Your task to perform on an android device: turn off notifications settings in the gmail app Image 0: 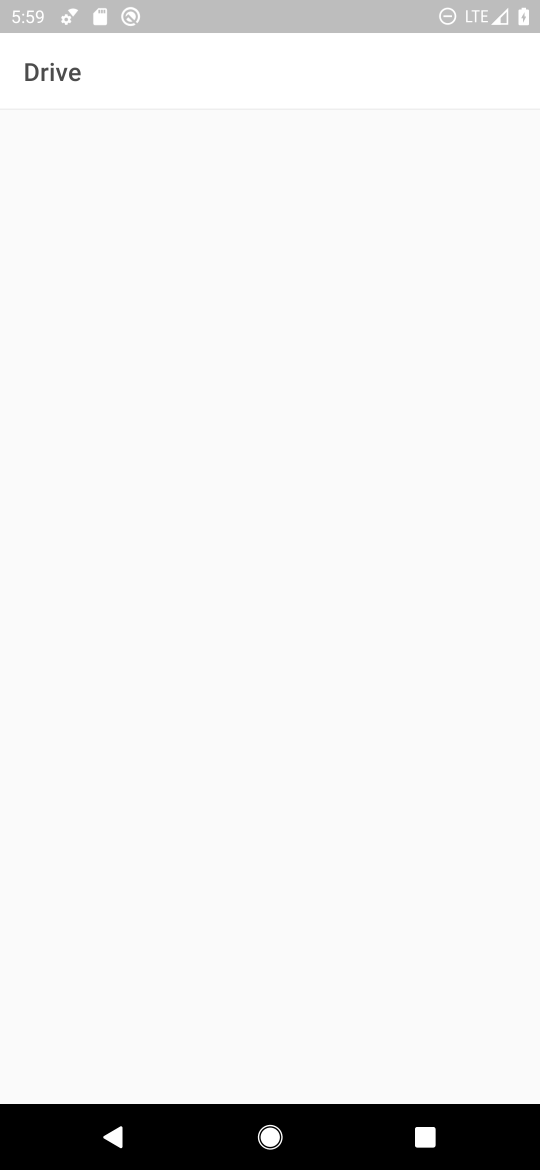
Step 0: press home button
Your task to perform on an android device: turn off notifications settings in the gmail app Image 1: 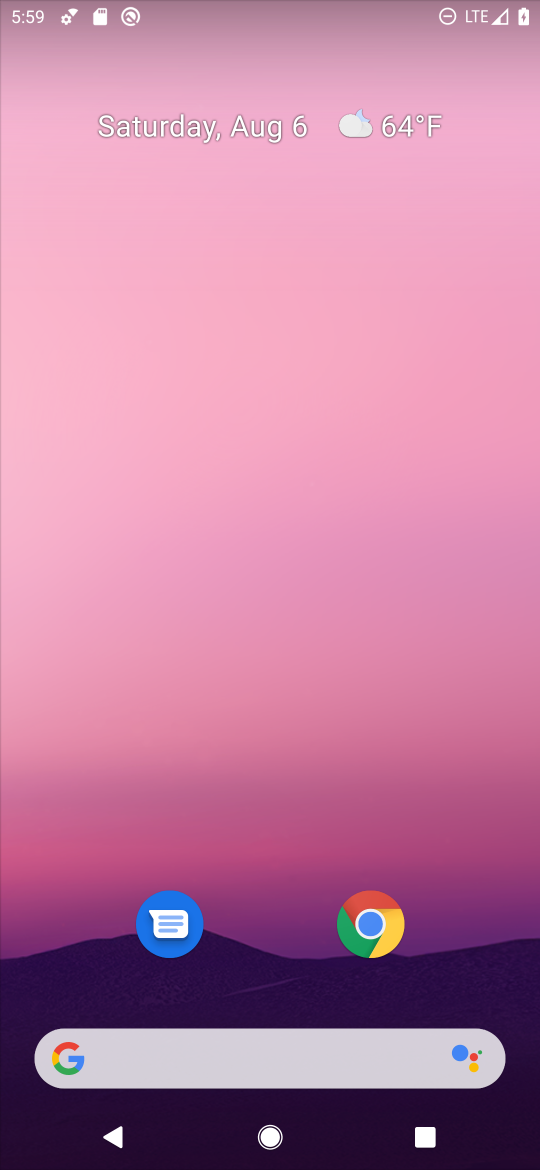
Step 1: drag from (252, 934) to (252, 231)
Your task to perform on an android device: turn off notifications settings in the gmail app Image 2: 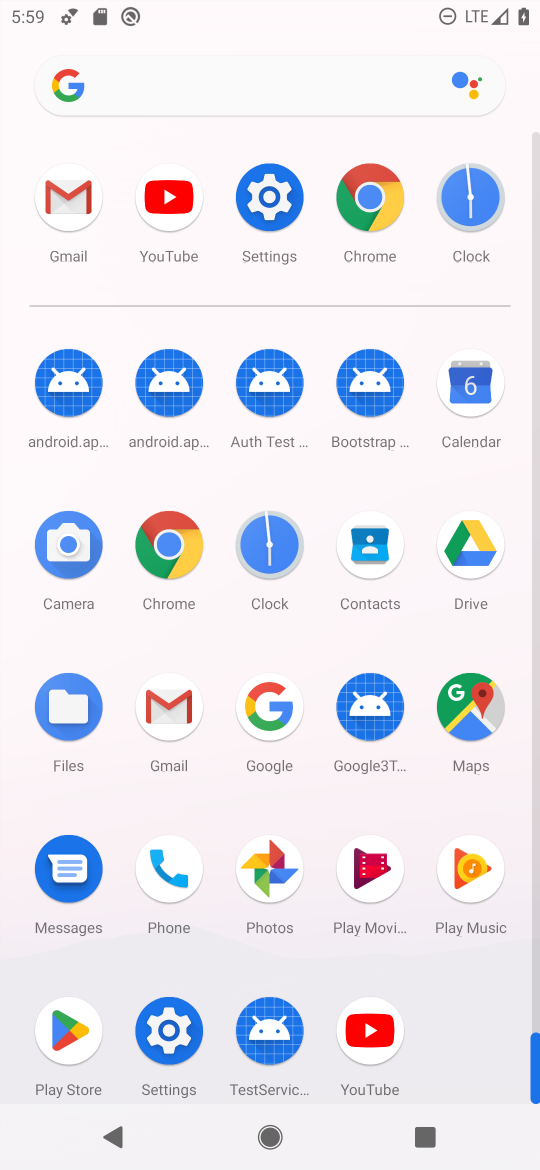
Step 2: click (67, 192)
Your task to perform on an android device: turn off notifications settings in the gmail app Image 3: 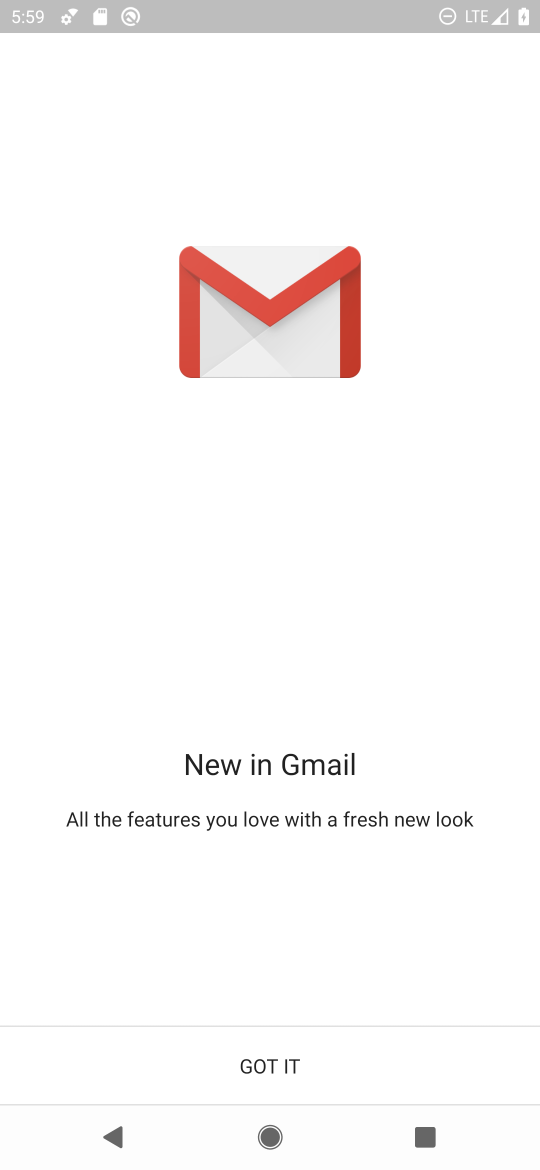
Step 3: click (270, 1057)
Your task to perform on an android device: turn off notifications settings in the gmail app Image 4: 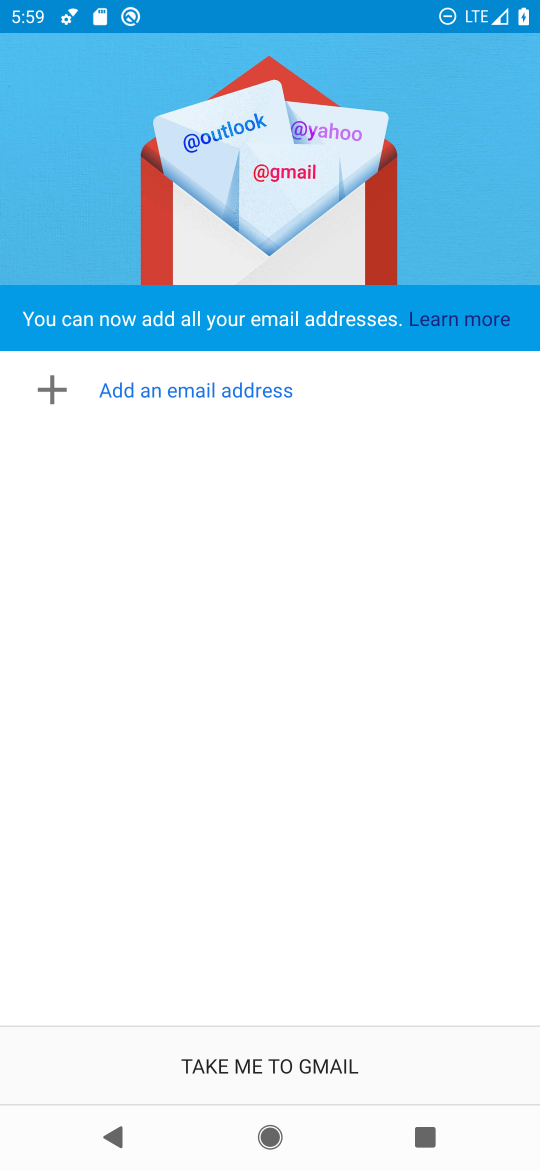
Step 4: click (251, 1047)
Your task to perform on an android device: turn off notifications settings in the gmail app Image 5: 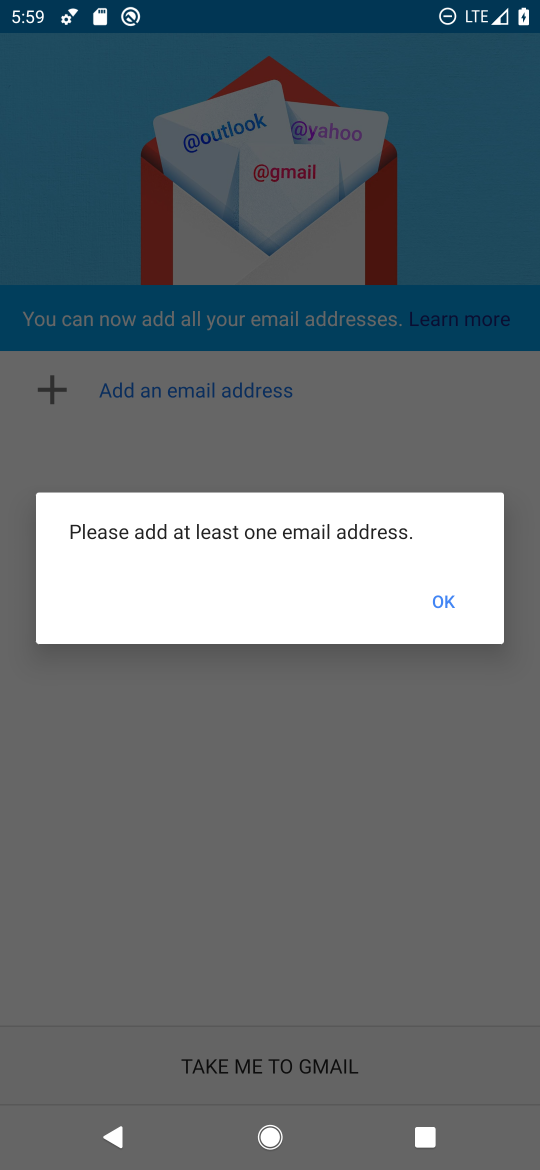
Step 5: click (434, 597)
Your task to perform on an android device: turn off notifications settings in the gmail app Image 6: 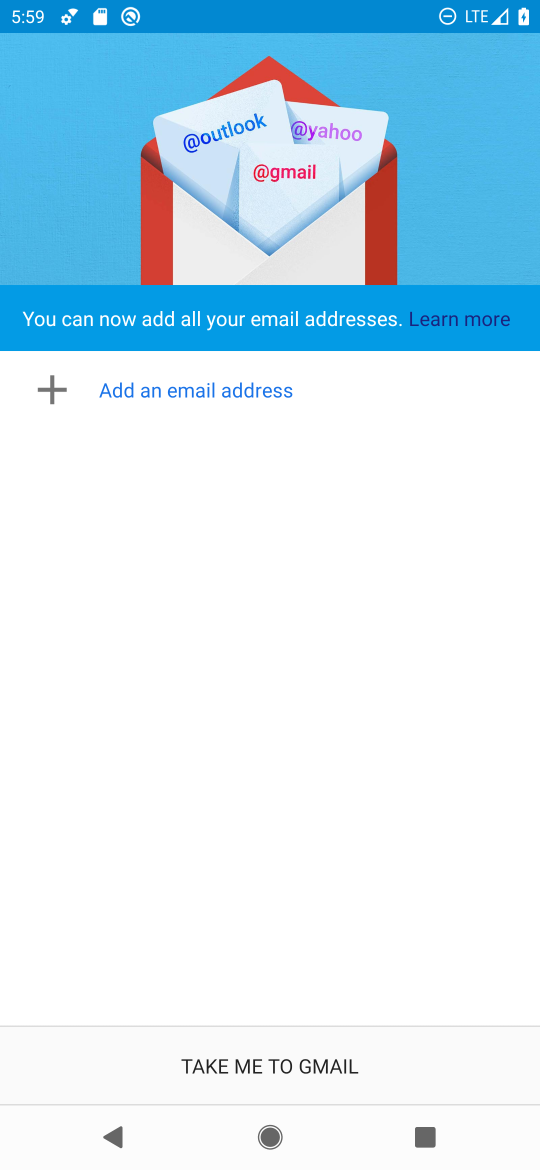
Step 6: task complete